Your task to perform on an android device: Open the Play Movies app and select the watchlist tab. Image 0: 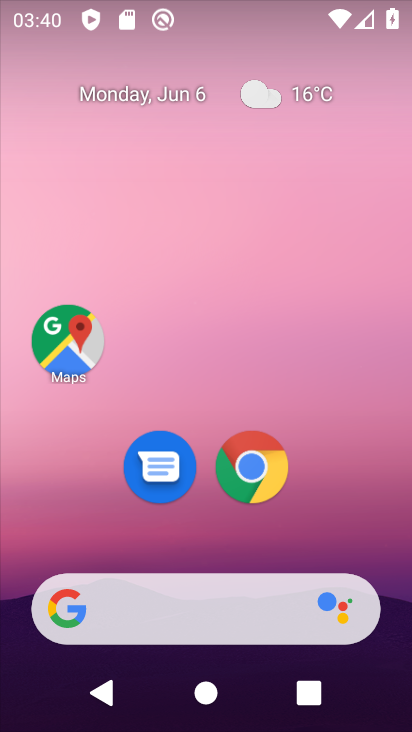
Step 0: press home button
Your task to perform on an android device: Open the Play Movies app and select the watchlist tab. Image 1: 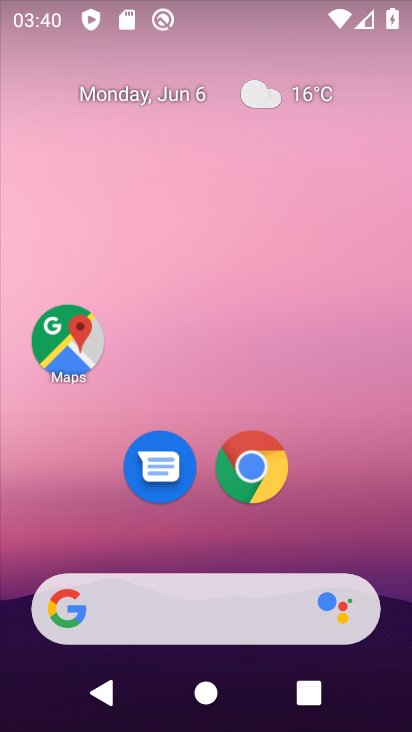
Step 1: drag from (200, 537) to (196, 15)
Your task to perform on an android device: Open the Play Movies app and select the watchlist tab. Image 2: 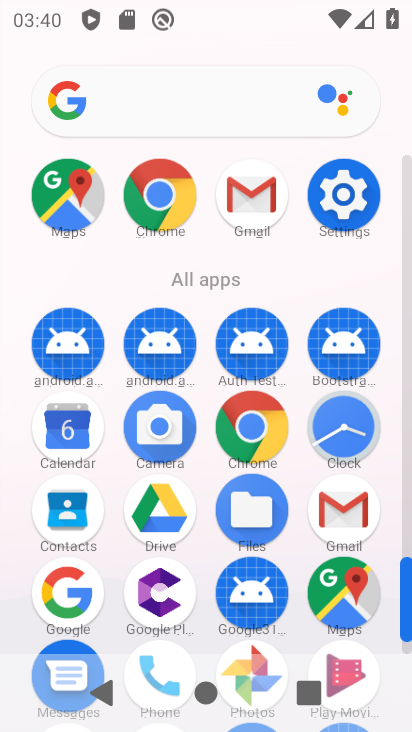
Step 2: drag from (210, 536) to (252, 120)
Your task to perform on an android device: Open the Play Movies app and select the watchlist tab. Image 3: 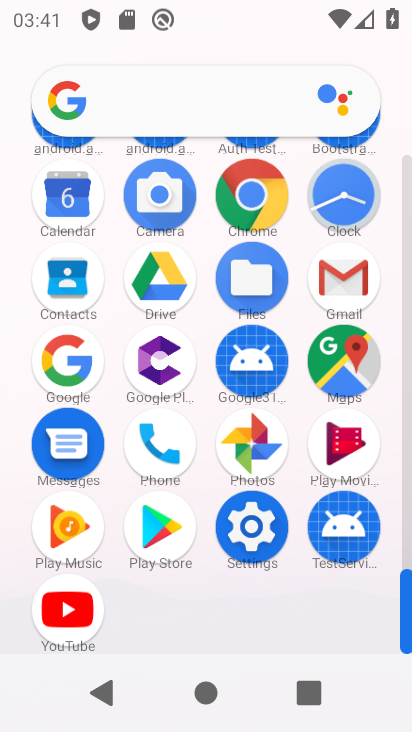
Step 3: click (337, 433)
Your task to perform on an android device: Open the Play Movies app and select the watchlist tab. Image 4: 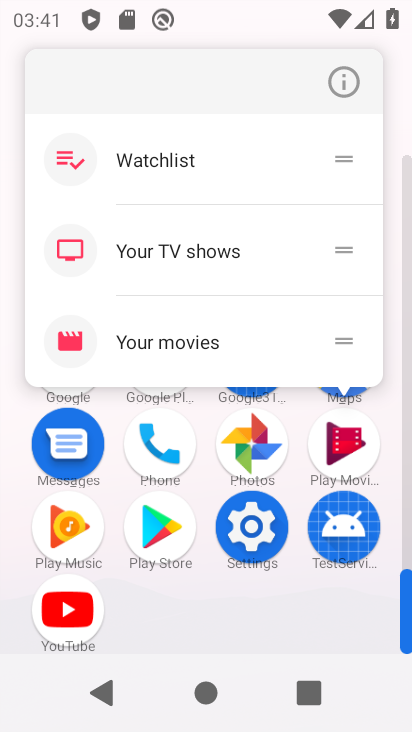
Step 4: click (341, 437)
Your task to perform on an android device: Open the Play Movies app and select the watchlist tab. Image 5: 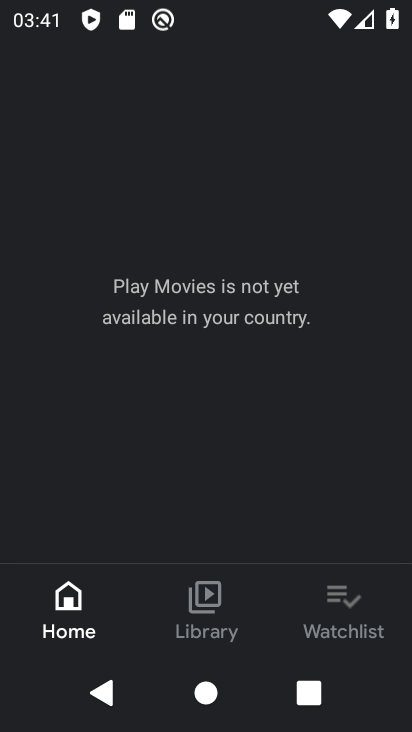
Step 5: click (341, 594)
Your task to perform on an android device: Open the Play Movies app and select the watchlist tab. Image 6: 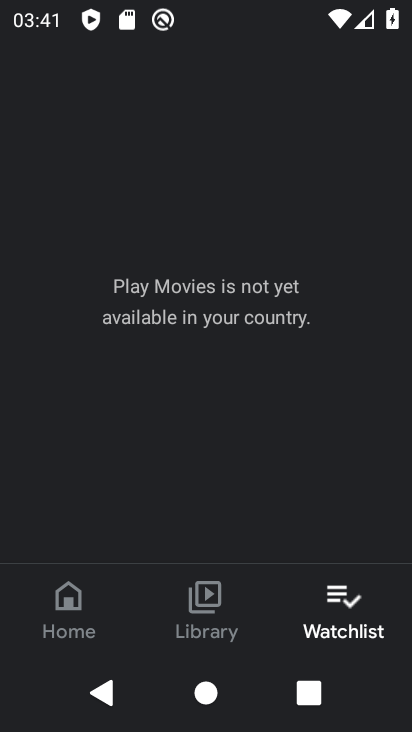
Step 6: task complete